Your task to perform on an android device: open the mobile data screen to see how much data has been used Image 0: 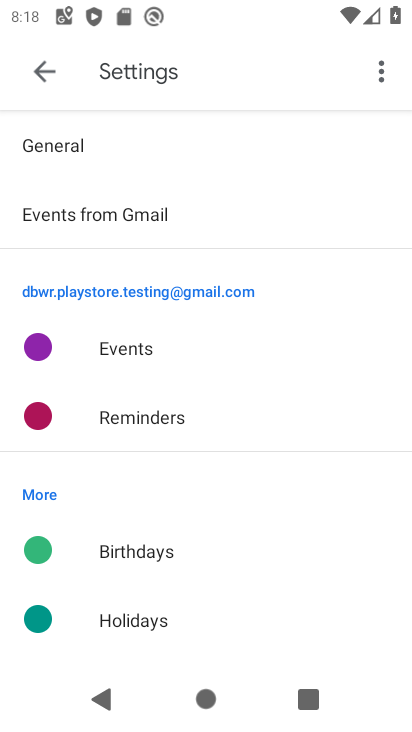
Step 0: press home button
Your task to perform on an android device: open the mobile data screen to see how much data has been used Image 1: 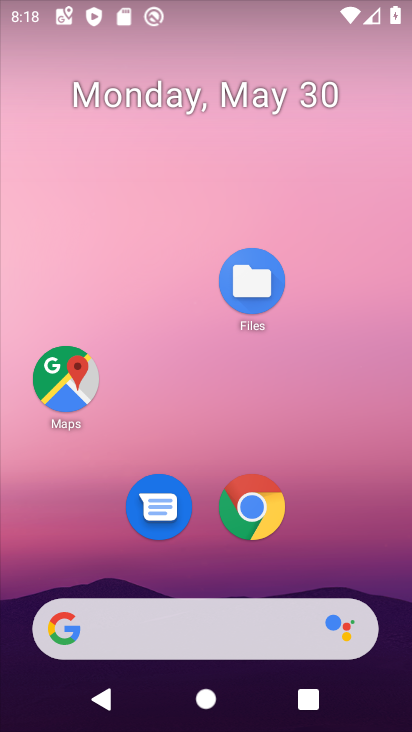
Step 1: drag from (221, 575) to (237, 486)
Your task to perform on an android device: open the mobile data screen to see how much data has been used Image 2: 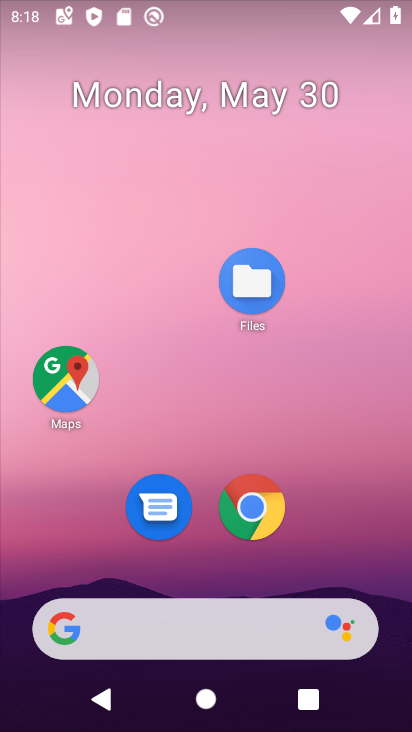
Step 2: drag from (175, 585) to (213, 173)
Your task to perform on an android device: open the mobile data screen to see how much data has been used Image 3: 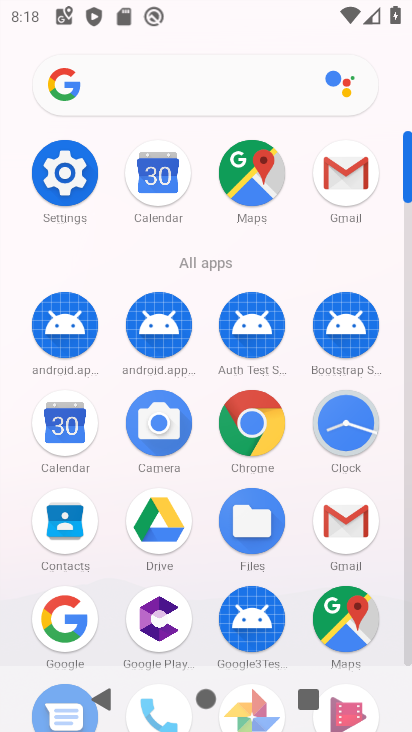
Step 3: click (70, 185)
Your task to perform on an android device: open the mobile data screen to see how much data has been used Image 4: 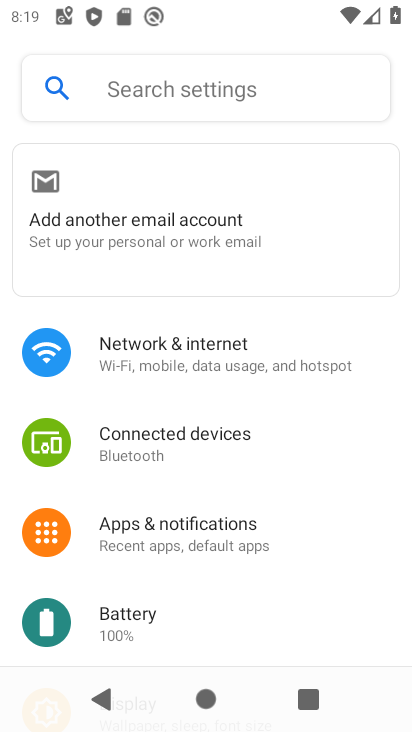
Step 4: click (207, 379)
Your task to perform on an android device: open the mobile data screen to see how much data has been used Image 5: 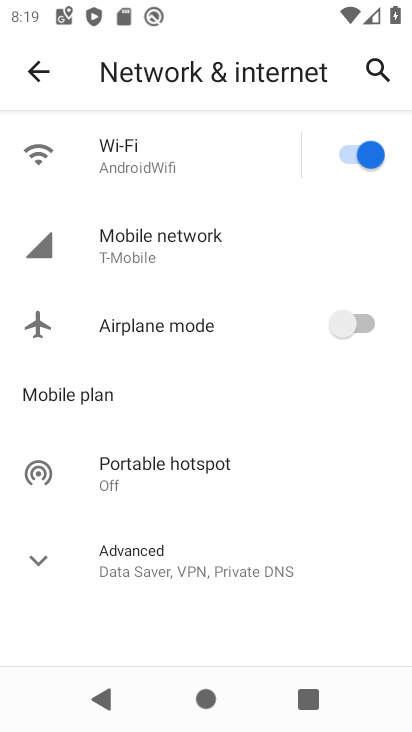
Step 5: click (189, 240)
Your task to perform on an android device: open the mobile data screen to see how much data has been used Image 6: 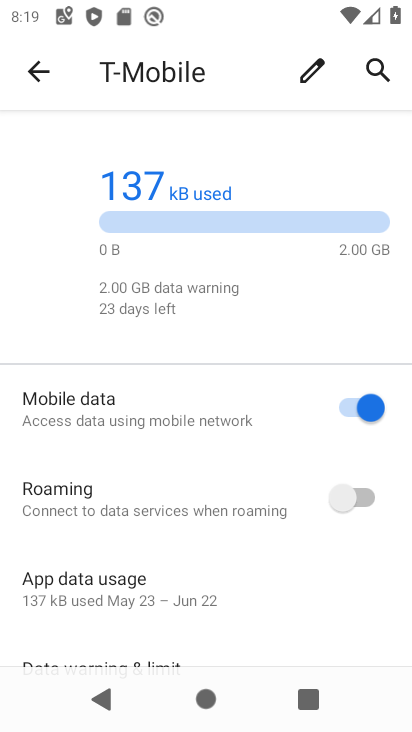
Step 6: click (128, 591)
Your task to perform on an android device: open the mobile data screen to see how much data has been used Image 7: 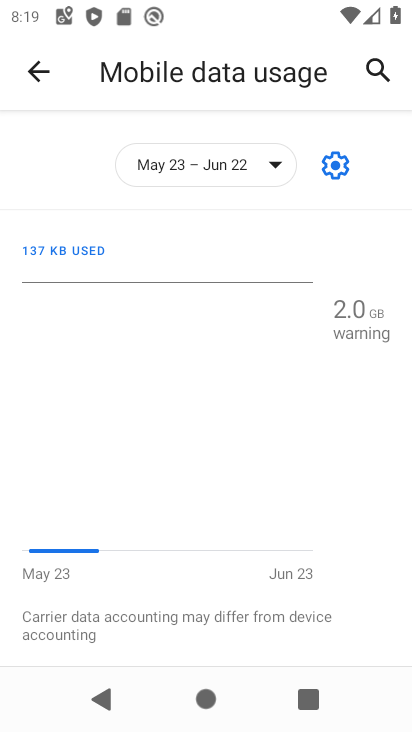
Step 7: task complete